Your task to perform on an android device: turn off notifications settings in the gmail app Image 0: 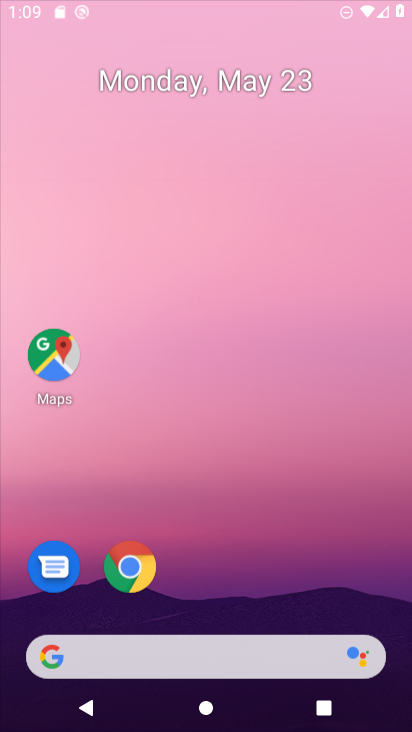
Step 0: press home button
Your task to perform on an android device: turn off notifications settings in the gmail app Image 1: 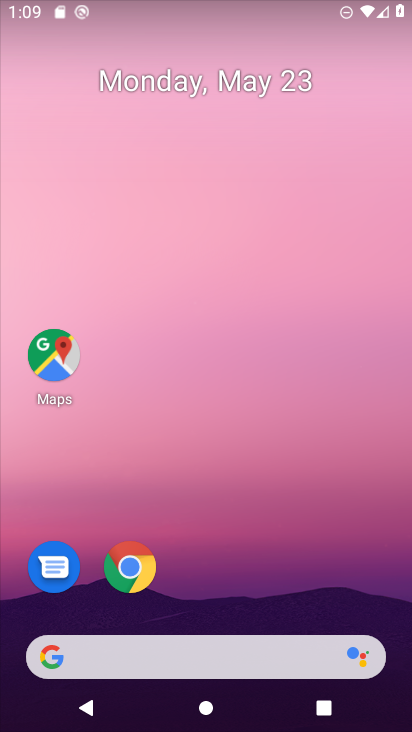
Step 1: drag from (216, 562) to (263, 111)
Your task to perform on an android device: turn off notifications settings in the gmail app Image 2: 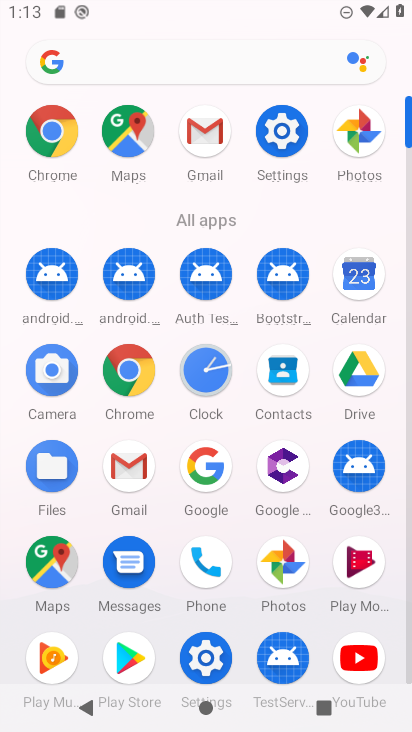
Step 2: click (111, 496)
Your task to perform on an android device: turn off notifications settings in the gmail app Image 3: 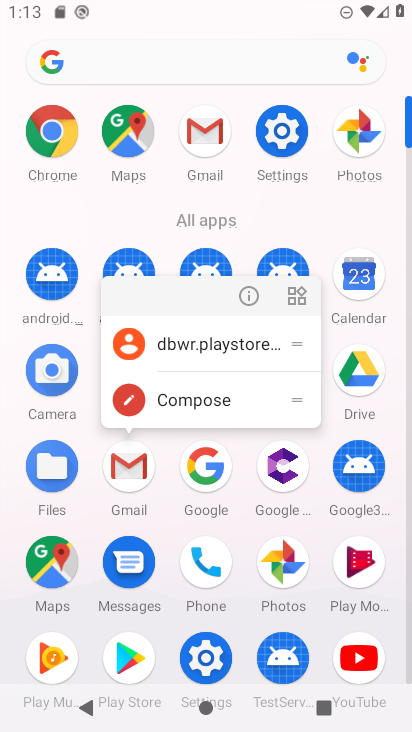
Step 3: click (259, 293)
Your task to perform on an android device: turn off notifications settings in the gmail app Image 4: 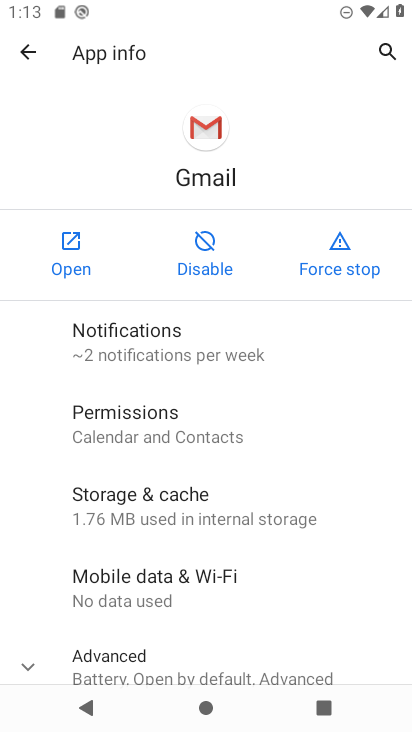
Step 4: click (114, 332)
Your task to perform on an android device: turn off notifications settings in the gmail app Image 5: 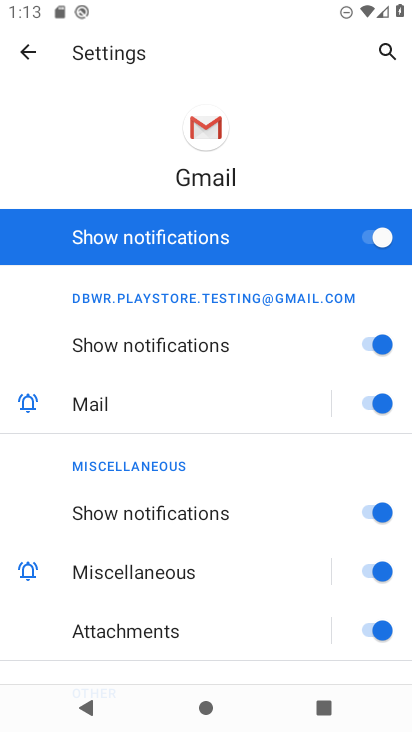
Step 5: click (371, 231)
Your task to perform on an android device: turn off notifications settings in the gmail app Image 6: 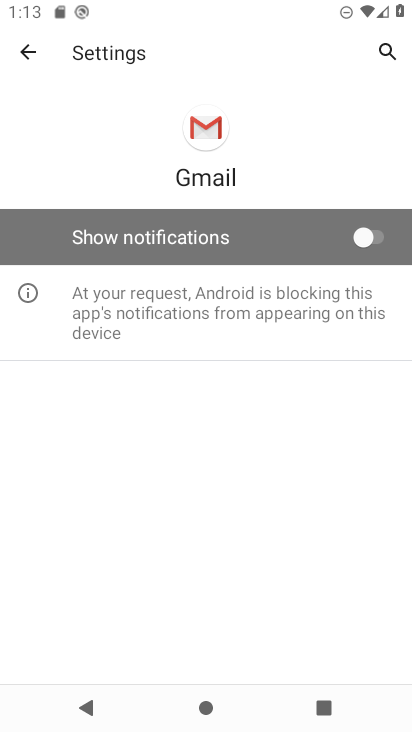
Step 6: task complete